Your task to perform on an android device: Open the calendar app, open the side menu, and click the "Day" option Image 0: 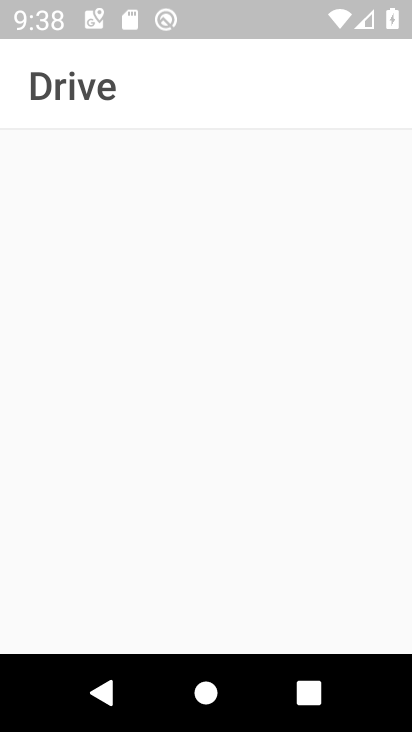
Step 0: press home button
Your task to perform on an android device: Open the calendar app, open the side menu, and click the "Day" option Image 1: 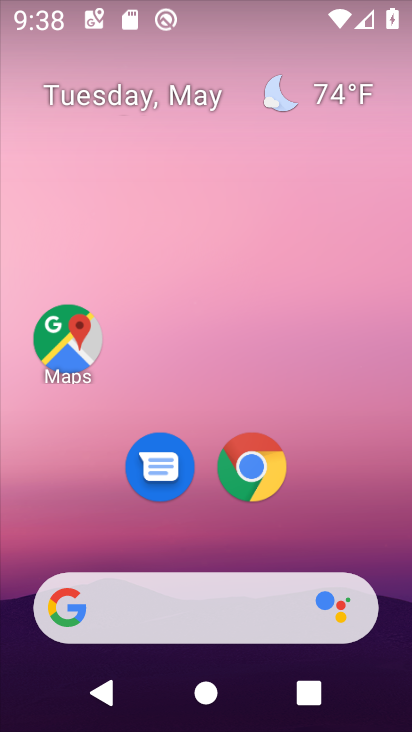
Step 1: drag from (362, 473) to (358, 149)
Your task to perform on an android device: Open the calendar app, open the side menu, and click the "Day" option Image 2: 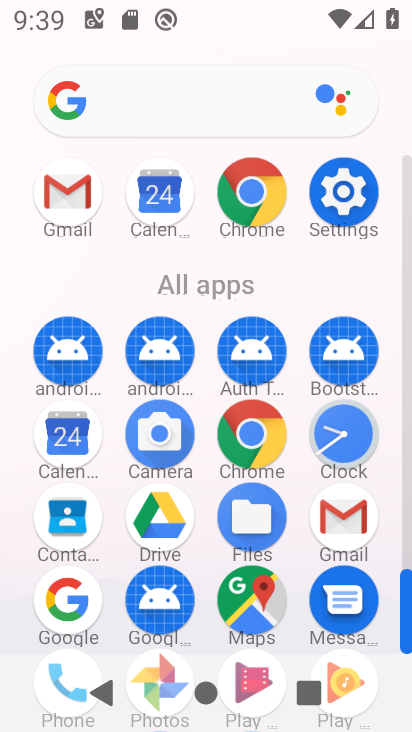
Step 2: click (57, 428)
Your task to perform on an android device: Open the calendar app, open the side menu, and click the "Day" option Image 3: 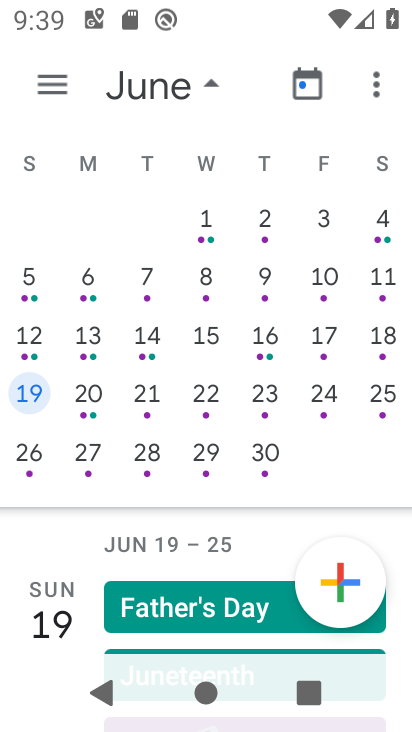
Step 3: click (53, 83)
Your task to perform on an android device: Open the calendar app, open the side menu, and click the "Day" option Image 4: 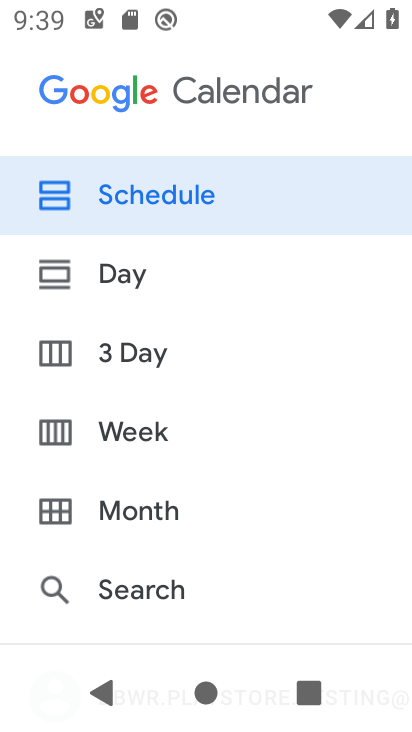
Step 4: click (125, 271)
Your task to perform on an android device: Open the calendar app, open the side menu, and click the "Day" option Image 5: 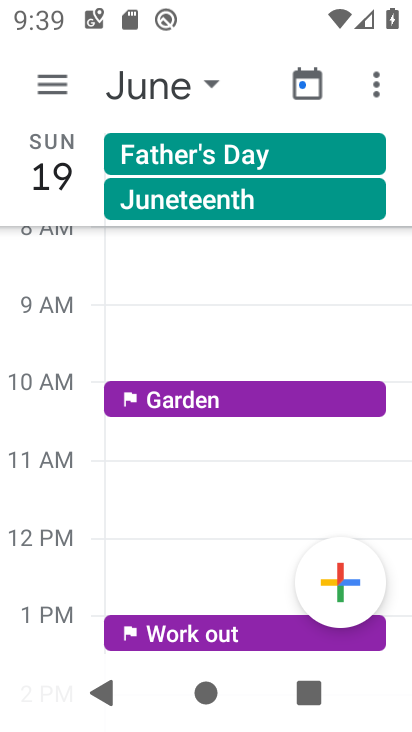
Step 5: task complete